Your task to perform on an android device: Open notification settings Image 0: 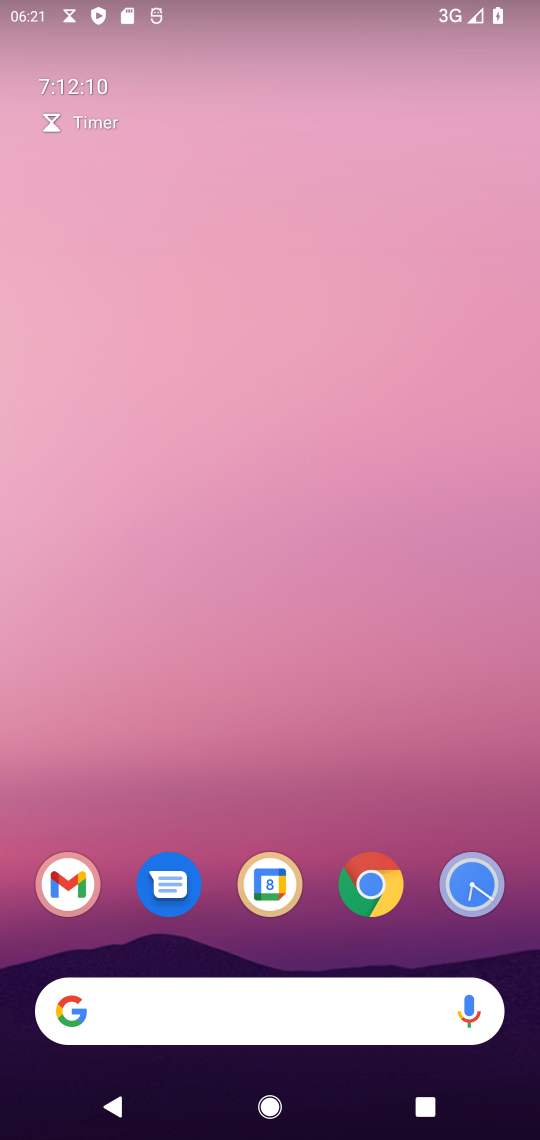
Step 0: drag from (330, 808) to (325, 153)
Your task to perform on an android device: Open notification settings Image 1: 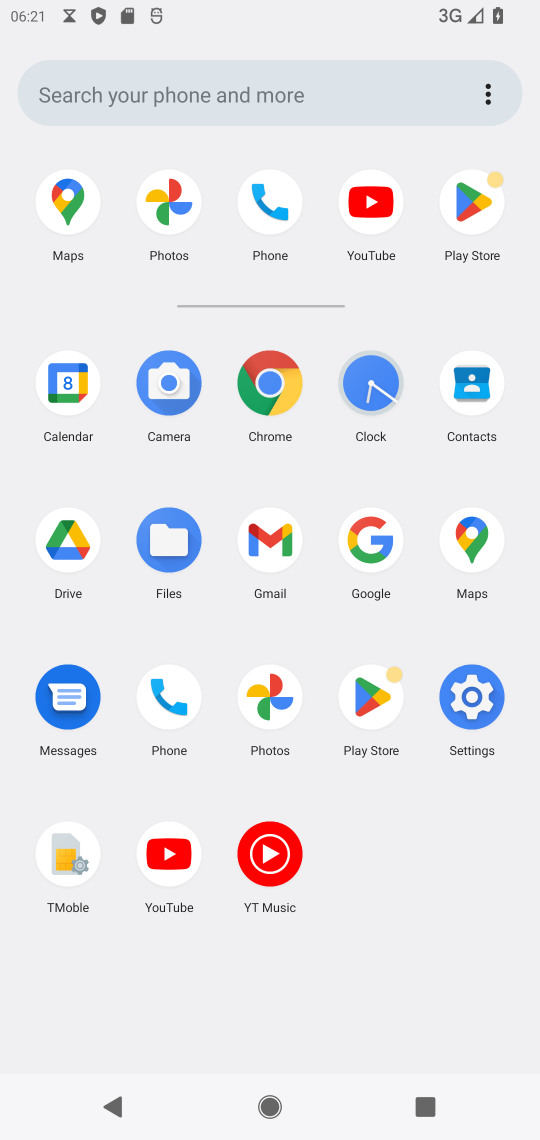
Step 1: click (470, 719)
Your task to perform on an android device: Open notification settings Image 2: 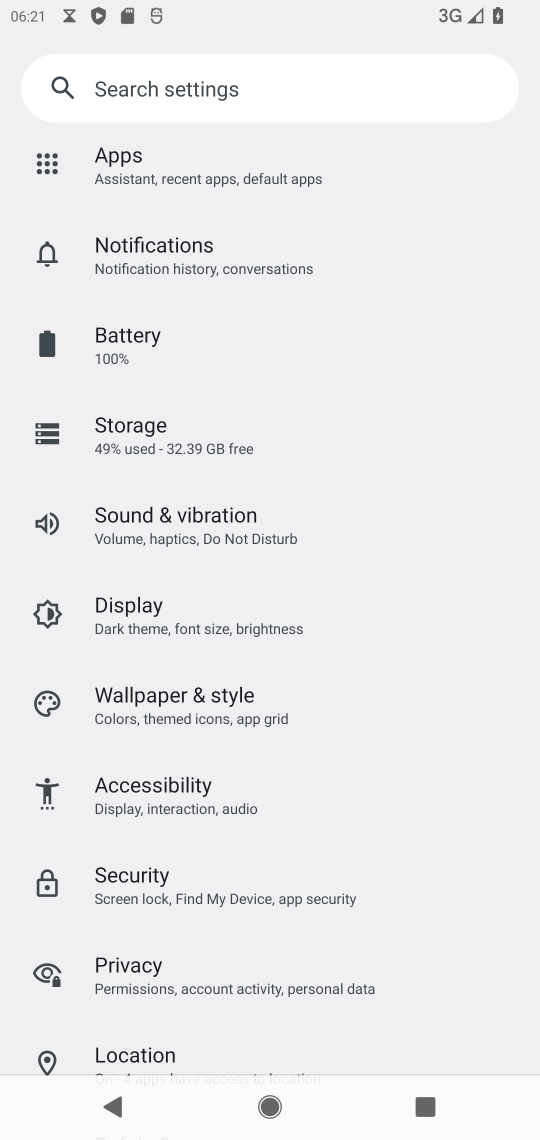
Step 2: click (326, 255)
Your task to perform on an android device: Open notification settings Image 3: 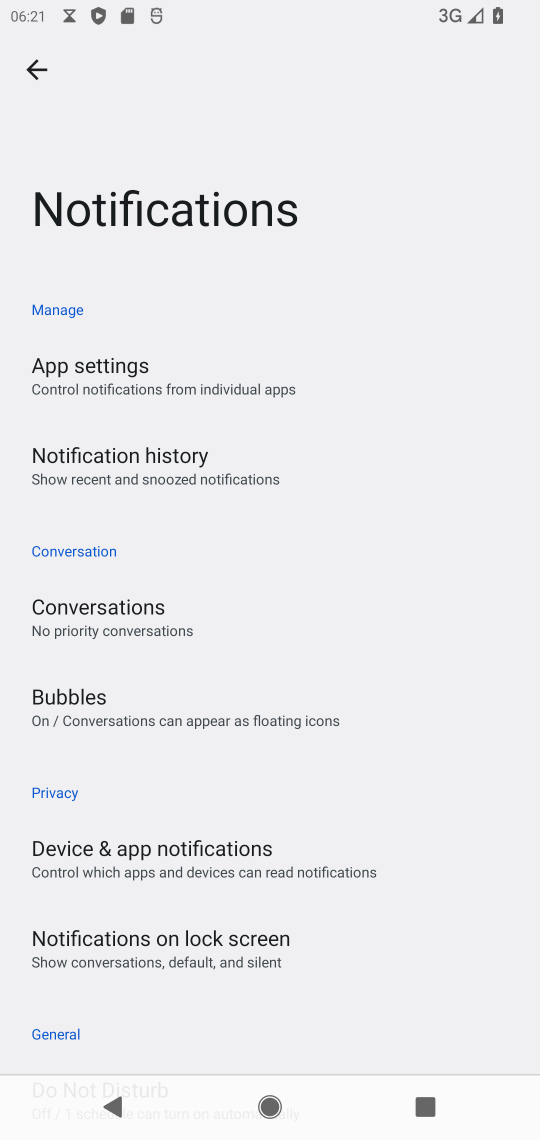
Step 3: task complete